Your task to perform on an android device: Go to Amazon Image 0: 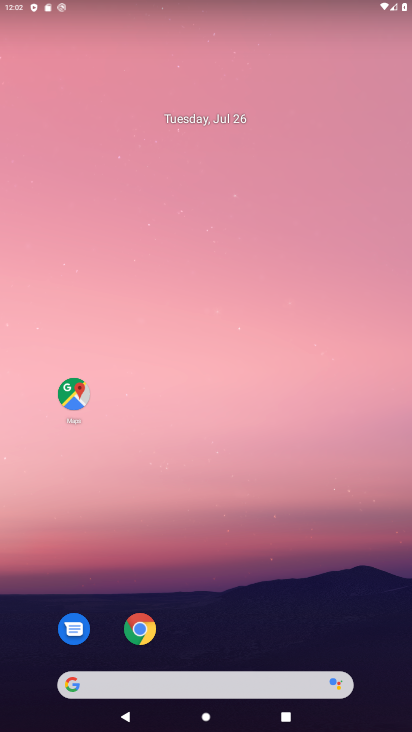
Step 0: press back button
Your task to perform on an android device: Go to Amazon Image 1: 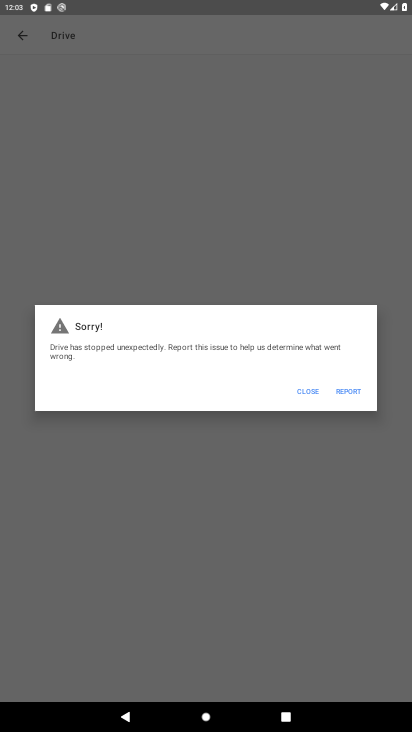
Step 1: click (319, 389)
Your task to perform on an android device: Go to Amazon Image 2: 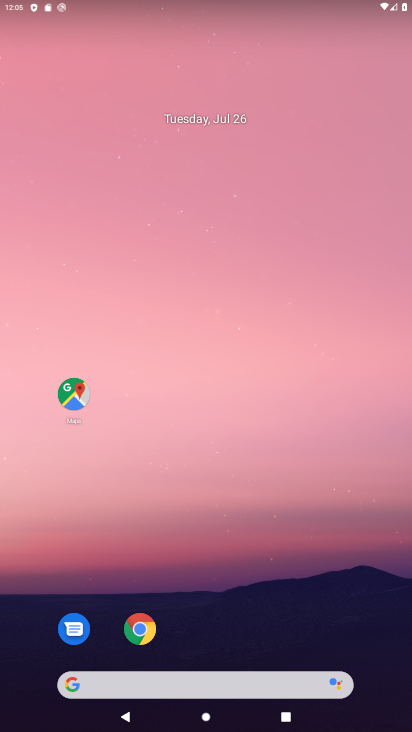
Step 2: drag from (289, 644) to (321, 4)
Your task to perform on an android device: Go to Amazon Image 3: 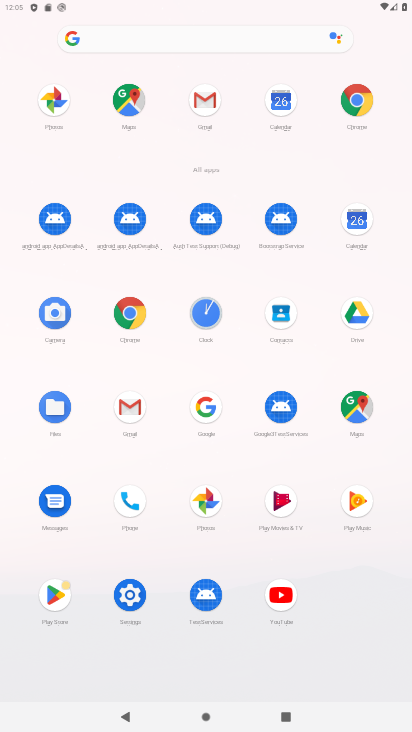
Step 3: click (352, 89)
Your task to perform on an android device: Go to Amazon Image 4: 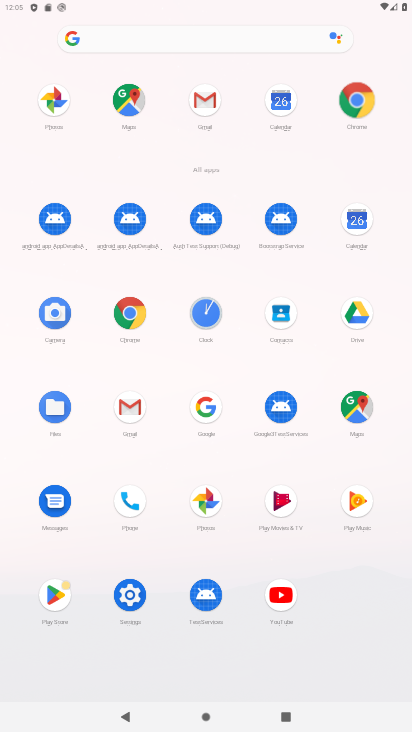
Step 4: click (349, 89)
Your task to perform on an android device: Go to Amazon Image 5: 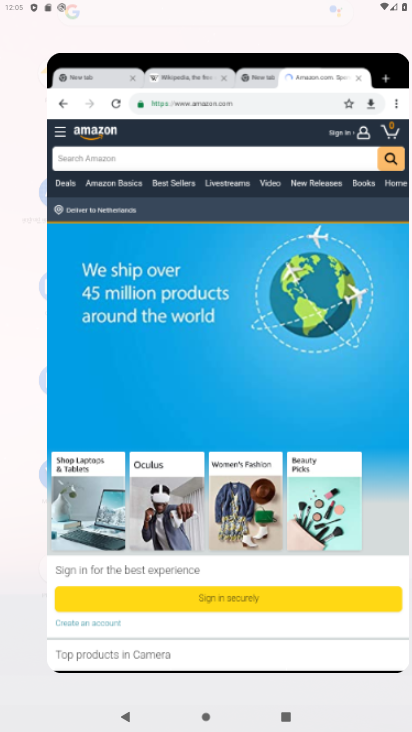
Step 5: click (358, 79)
Your task to perform on an android device: Go to Amazon Image 6: 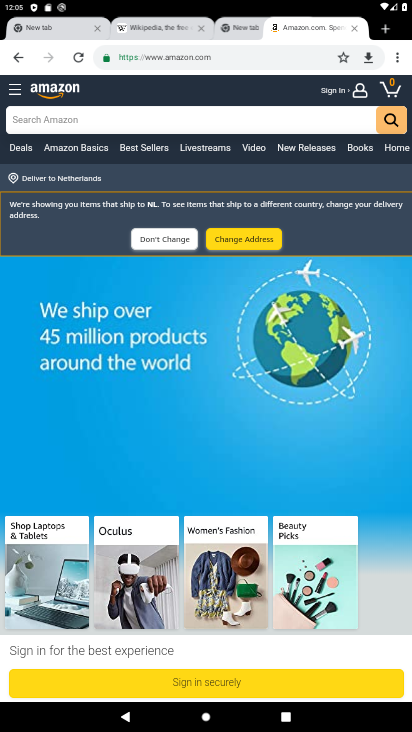
Step 6: task complete